Your task to perform on an android device: check google app version Image 0: 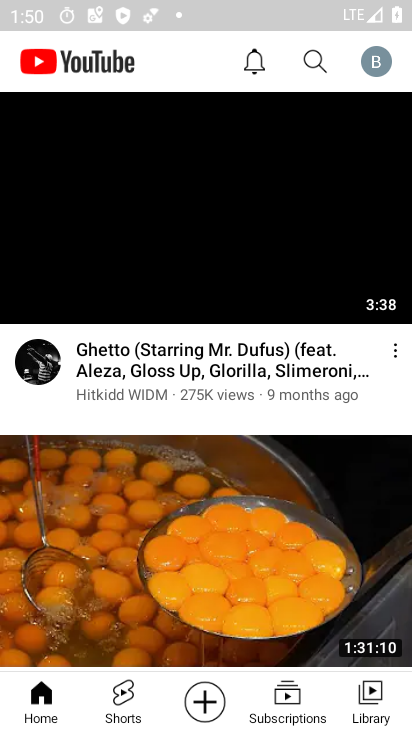
Step 0: press home button
Your task to perform on an android device: check google app version Image 1: 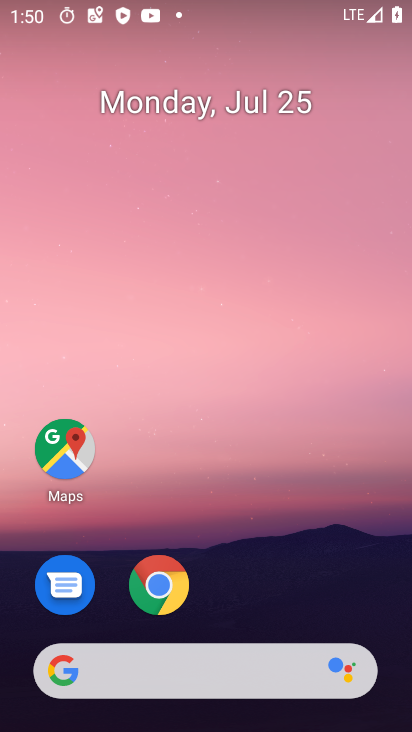
Step 1: drag from (220, 650) to (226, 370)
Your task to perform on an android device: check google app version Image 2: 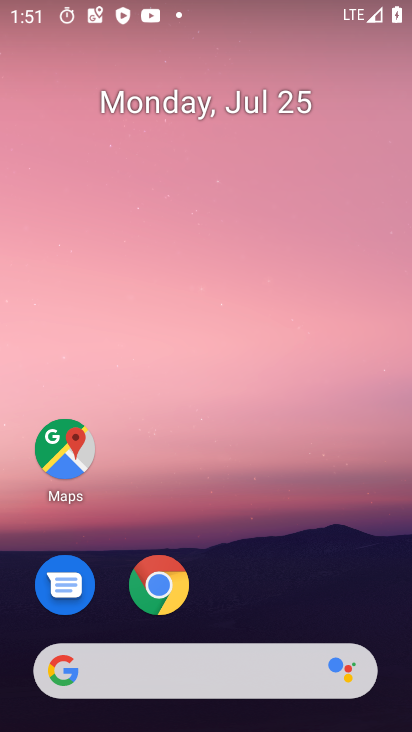
Step 2: drag from (181, 660) to (179, 198)
Your task to perform on an android device: check google app version Image 3: 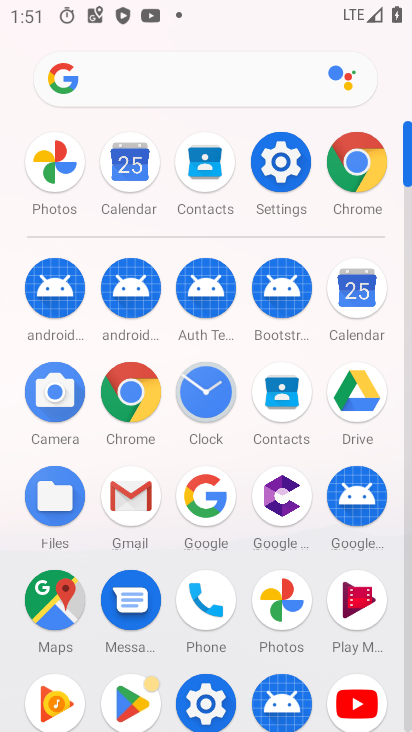
Step 3: click (206, 496)
Your task to perform on an android device: check google app version Image 4: 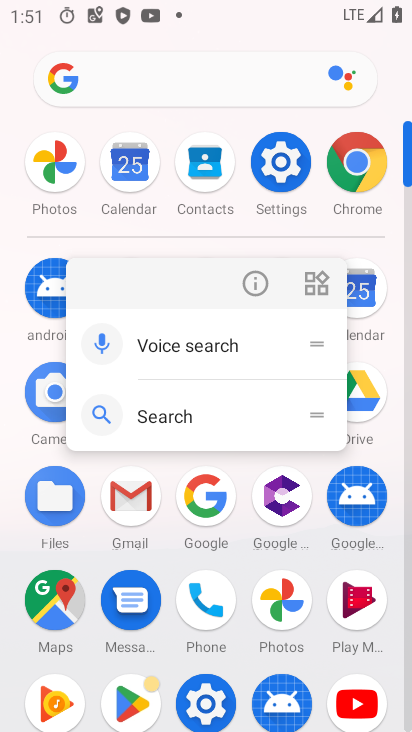
Step 4: click (255, 285)
Your task to perform on an android device: check google app version Image 5: 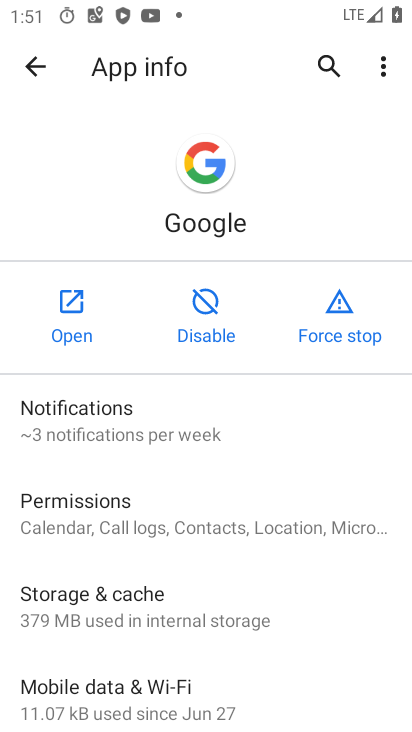
Step 5: drag from (201, 581) to (175, 81)
Your task to perform on an android device: check google app version Image 6: 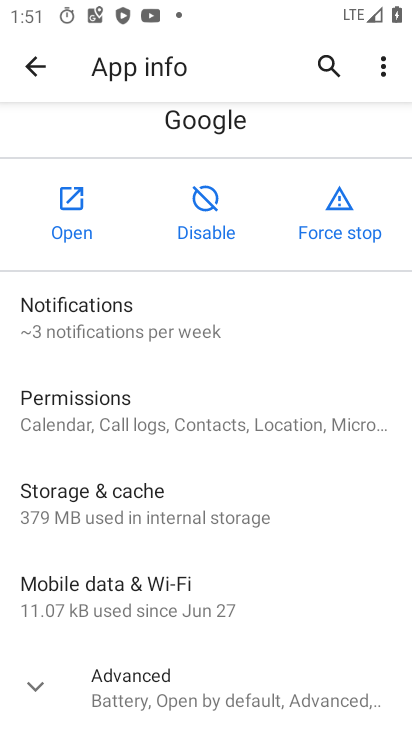
Step 6: click (188, 685)
Your task to perform on an android device: check google app version Image 7: 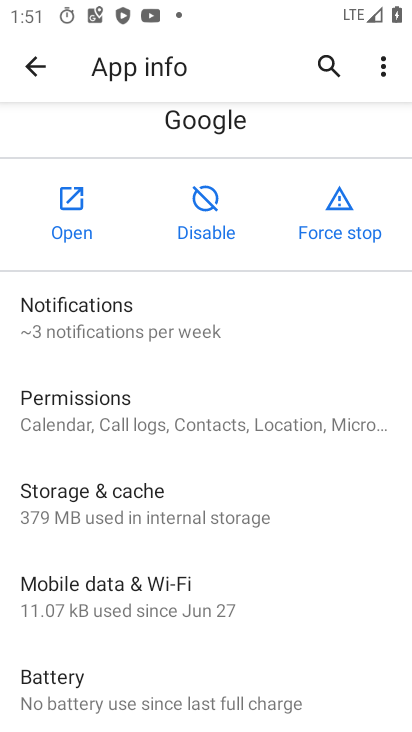
Step 7: task complete